Your task to perform on an android device: Open the calendar app, open the side menu, and click the "Day" option Image 0: 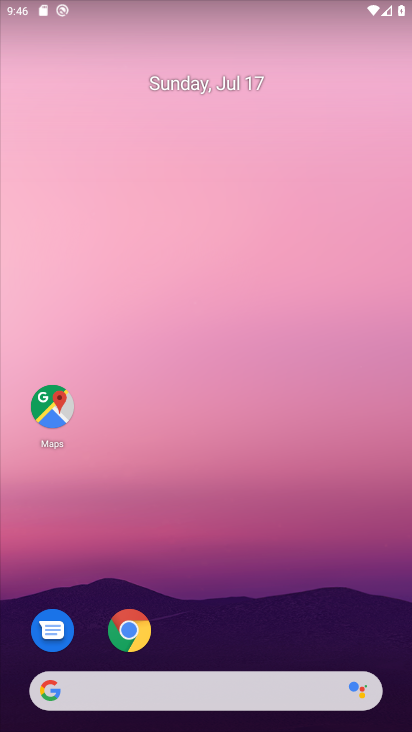
Step 0: drag from (213, 644) to (197, 16)
Your task to perform on an android device: Open the calendar app, open the side menu, and click the "Day" option Image 1: 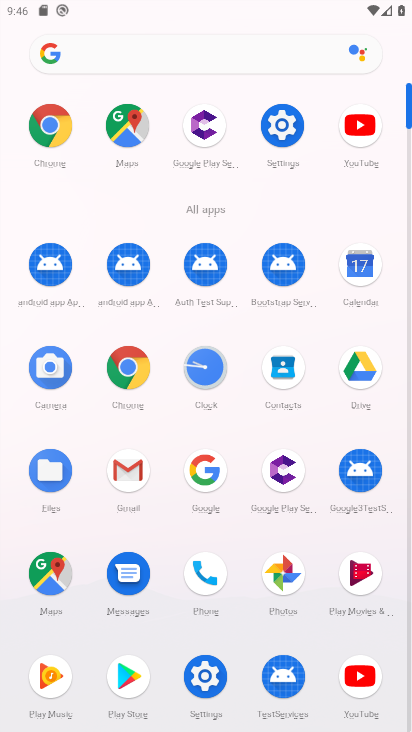
Step 1: click (361, 264)
Your task to perform on an android device: Open the calendar app, open the side menu, and click the "Day" option Image 2: 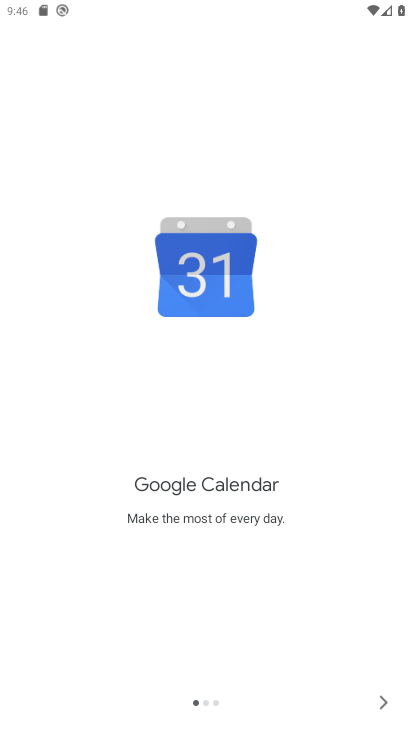
Step 2: click (378, 709)
Your task to perform on an android device: Open the calendar app, open the side menu, and click the "Day" option Image 3: 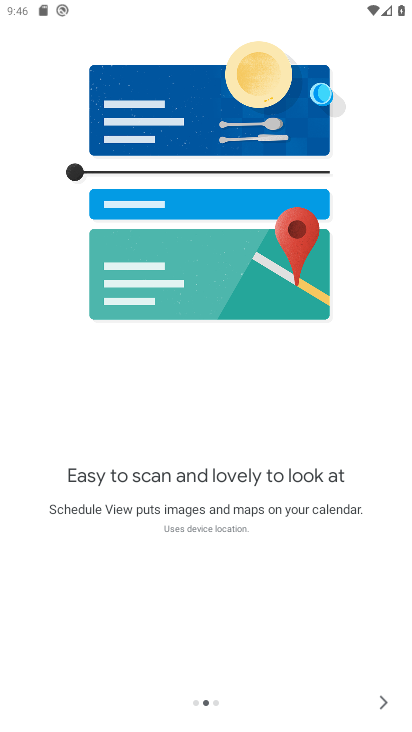
Step 3: click (387, 704)
Your task to perform on an android device: Open the calendar app, open the side menu, and click the "Day" option Image 4: 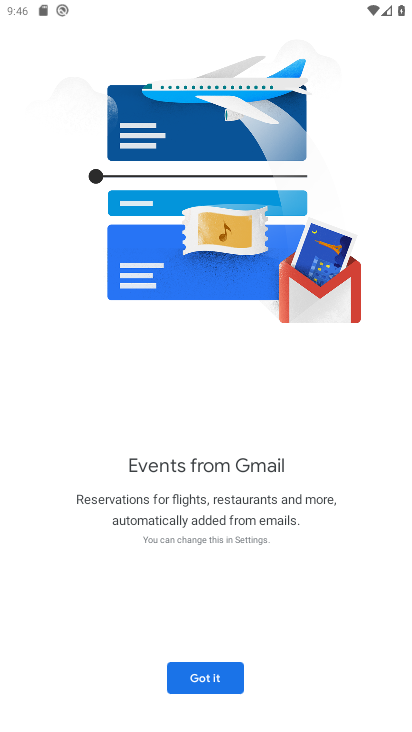
Step 4: click (230, 686)
Your task to perform on an android device: Open the calendar app, open the side menu, and click the "Day" option Image 5: 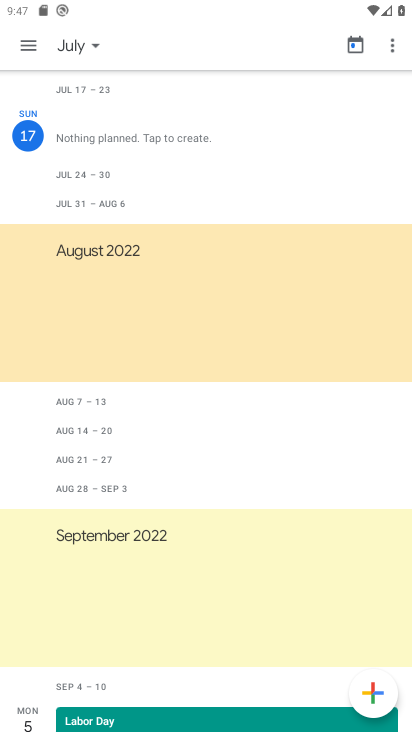
Step 5: click (25, 46)
Your task to perform on an android device: Open the calendar app, open the side menu, and click the "Day" option Image 6: 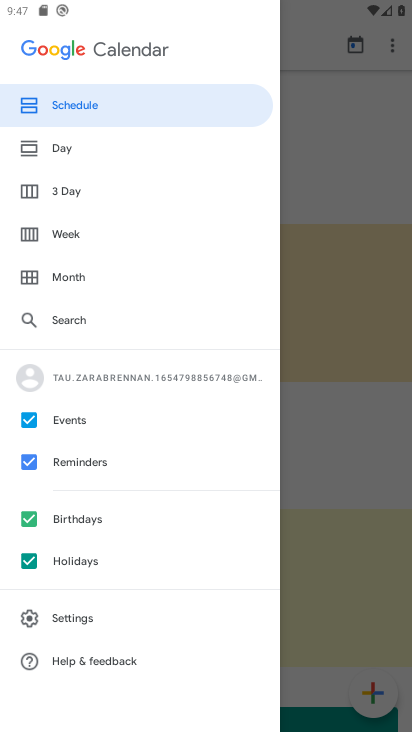
Step 6: click (64, 148)
Your task to perform on an android device: Open the calendar app, open the side menu, and click the "Day" option Image 7: 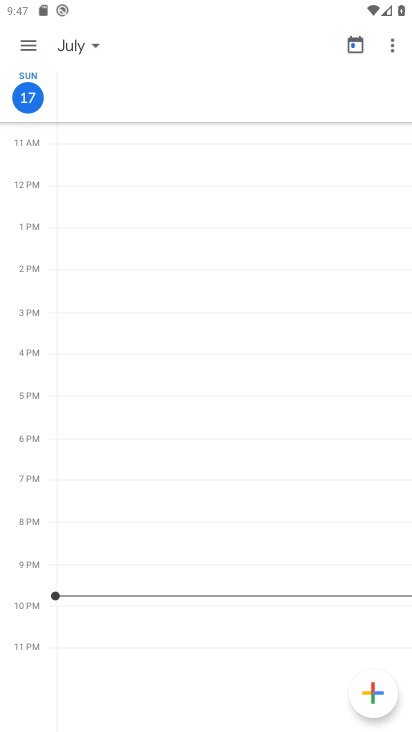
Step 7: task complete